Your task to perform on an android device: Clear the shopping cart on target. Add corsair k70 to the cart on target Image 0: 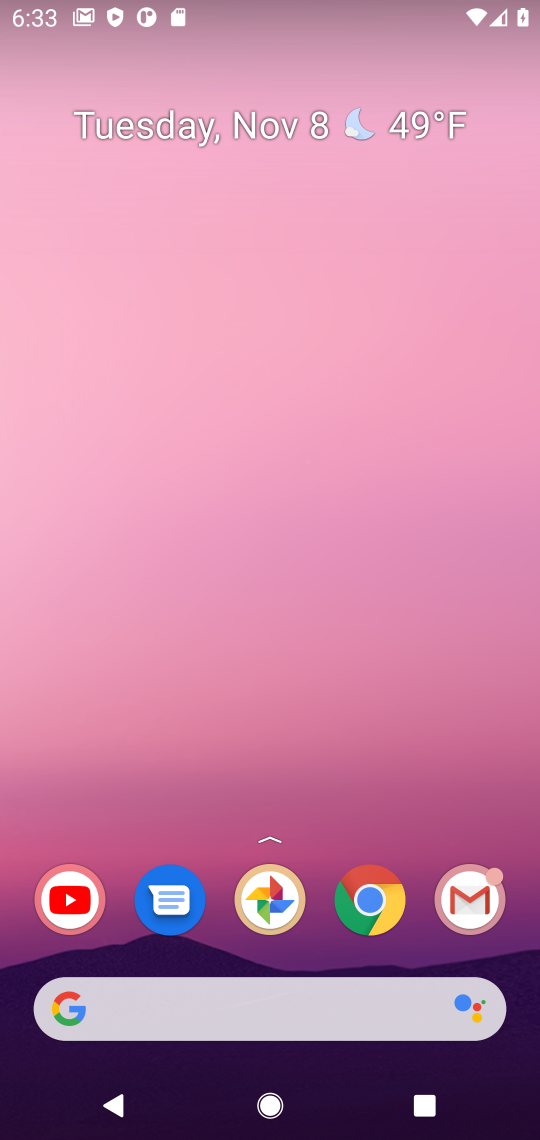
Step 0: click (366, 908)
Your task to perform on an android device: Clear the shopping cart on target. Add corsair k70 to the cart on target Image 1: 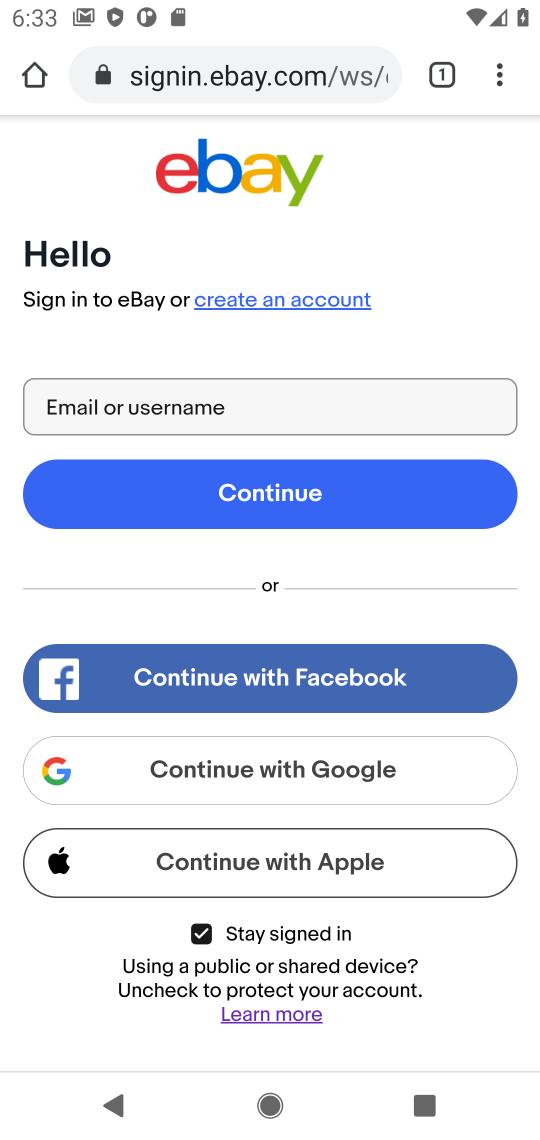
Step 1: click (191, 73)
Your task to perform on an android device: Clear the shopping cart on target. Add corsair k70 to the cart on target Image 2: 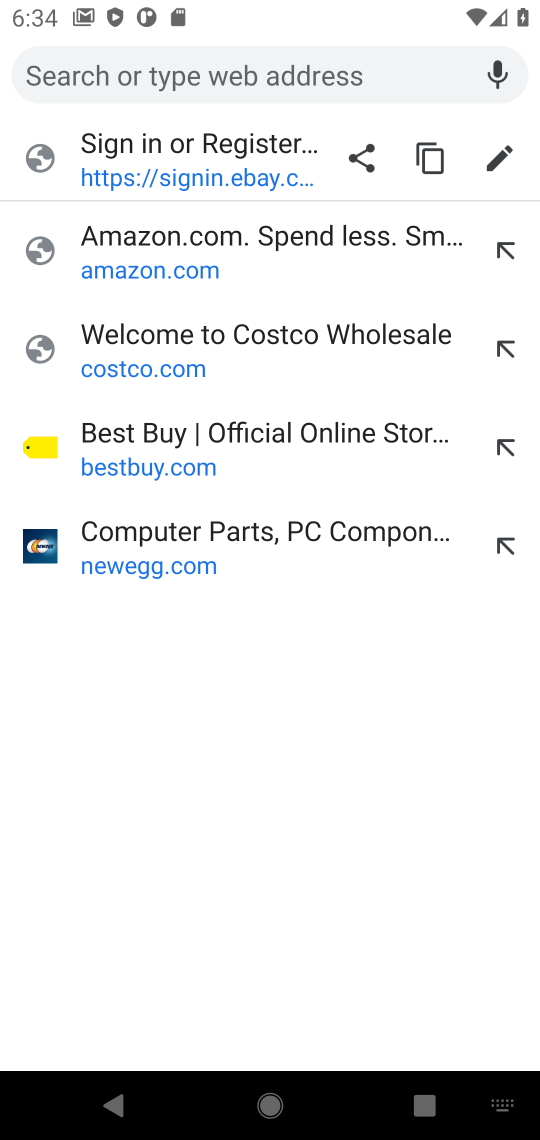
Step 2: type "target"
Your task to perform on an android device: Clear the shopping cart on target. Add corsair k70 to the cart on target Image 3: 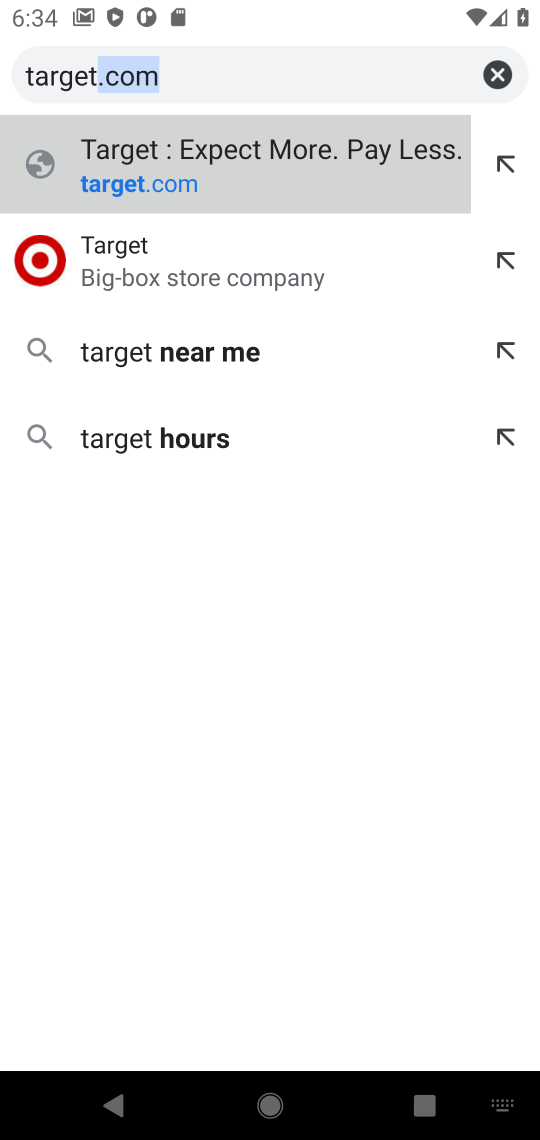
Step 3: type ""
Your task to perform on an android device: Clear the shopping cart on target. Add corsair k70 to the cart on target Image 4: 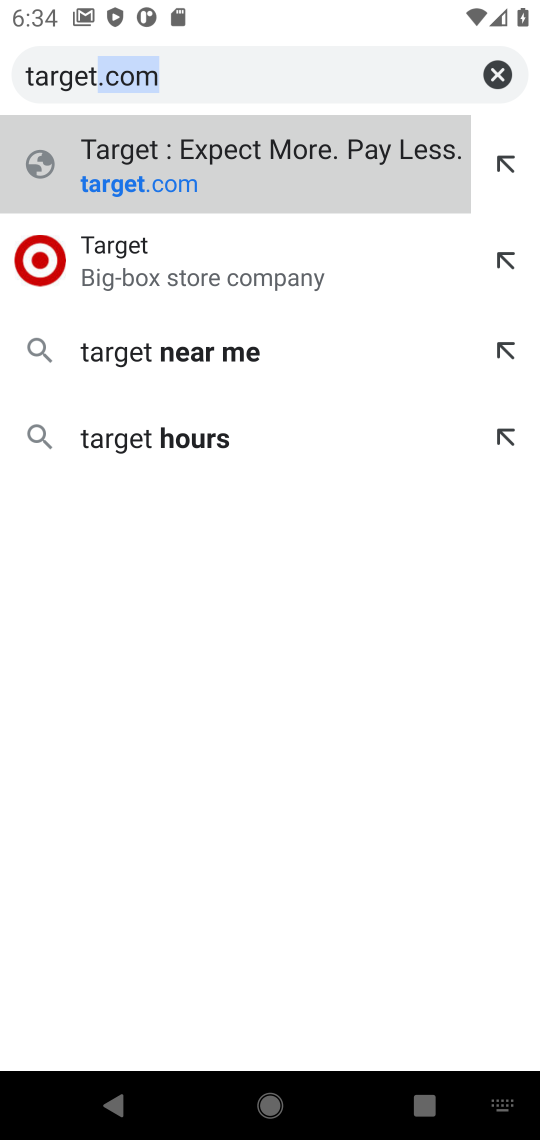
Step 4: press enter
Your task to perform on an android device: Clear the shopping cart on target. Add corsair k70 to the cart on target Image 5: 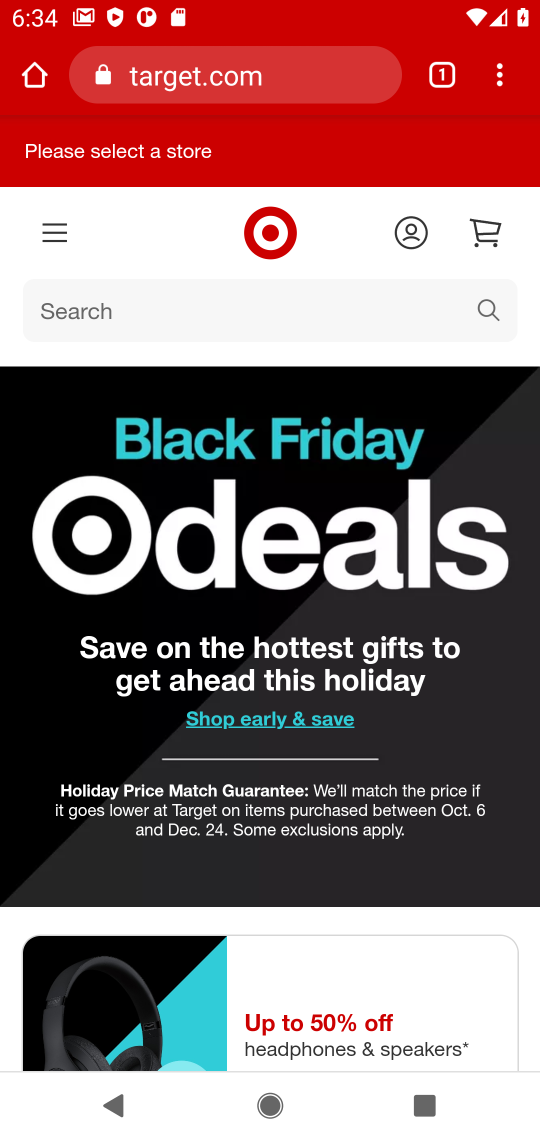
Step 5: click (518, 231)
Your task to perform on an android device: Clear the shopping cart on target. Add corsair k70 to the cart on target Image 6: 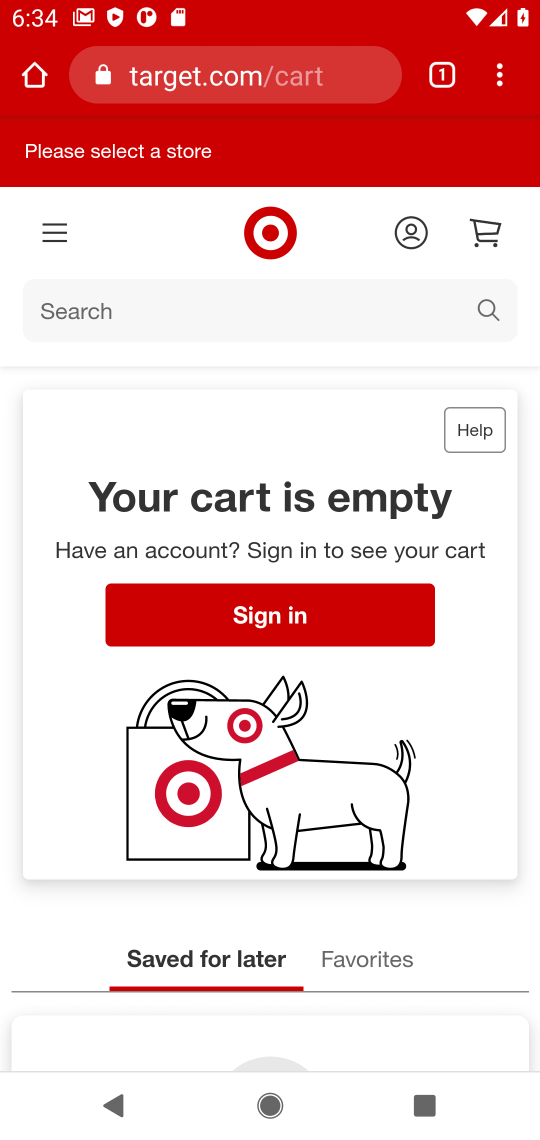
Step 6: click (312, 315)
Your task to perform on an android device: Clear the shopping cart on target. Add corsair k70 to the cart on target Image 7: 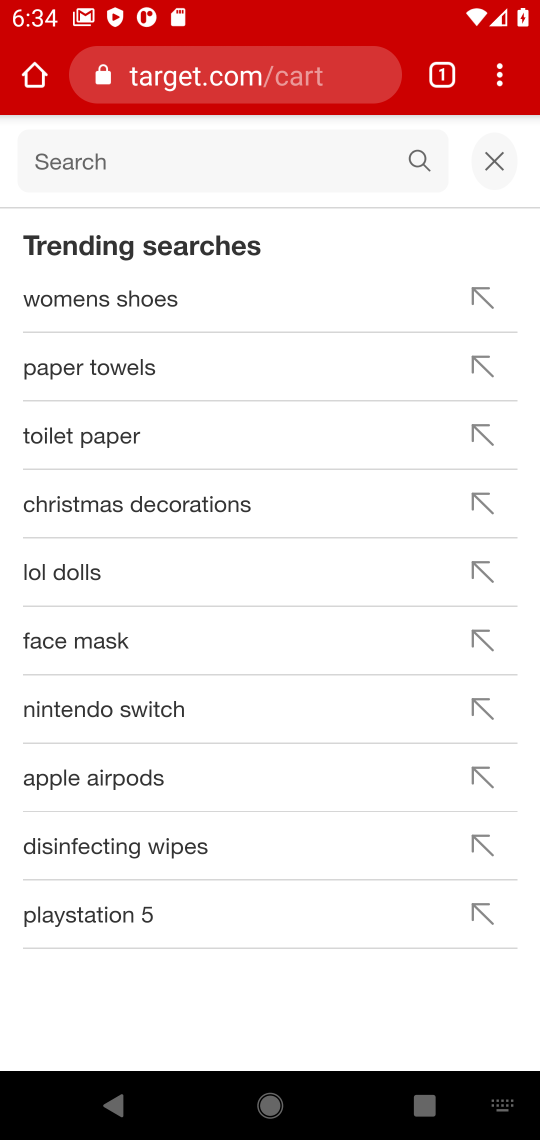
Step 7: type "corsair k70"
Your task to perform on an android device: Clear the shopping cart on target. Add corsair k70 to the cart on target Image 8: 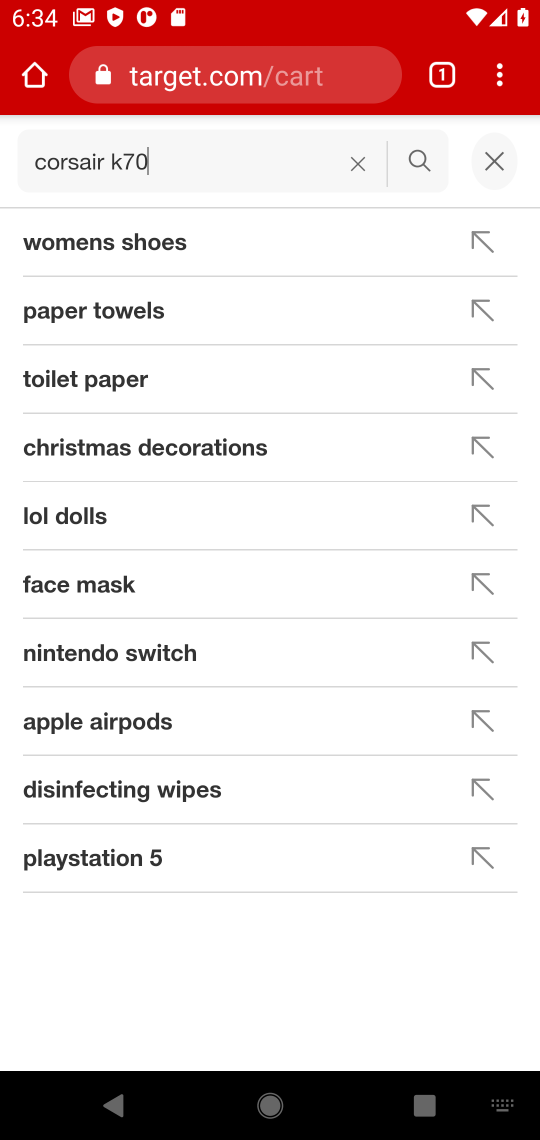
Step 8: type ""
Your task to perform on an android device: Clear the shopping cart on target. Add corsair k70 to the cart on target Image 9: 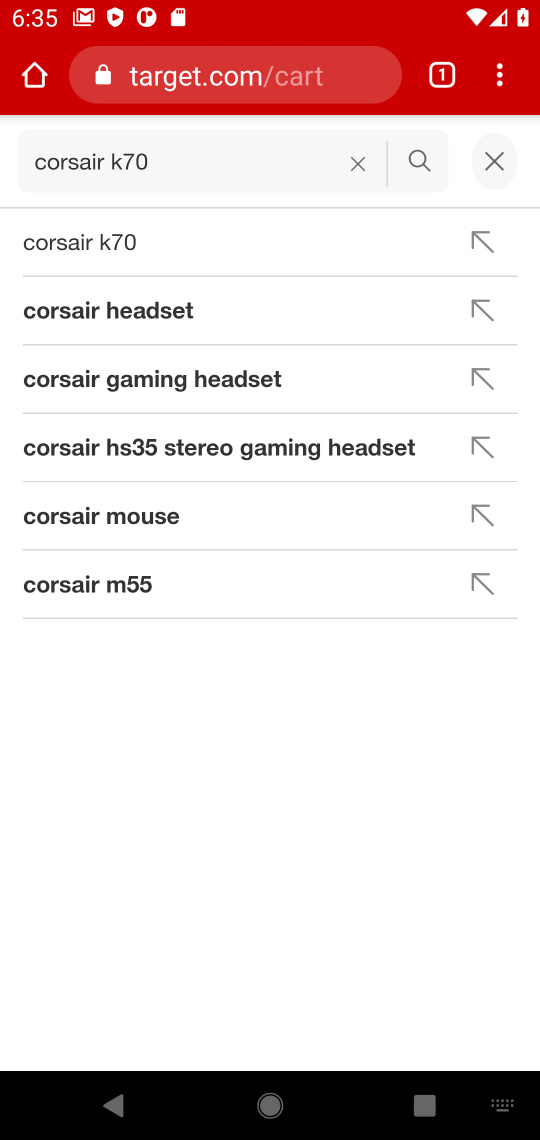
Step 9: press enter
Your task to perform on an android device: Clear the shopping cart on target. Add corsair k70 to the cart on target Image 10: 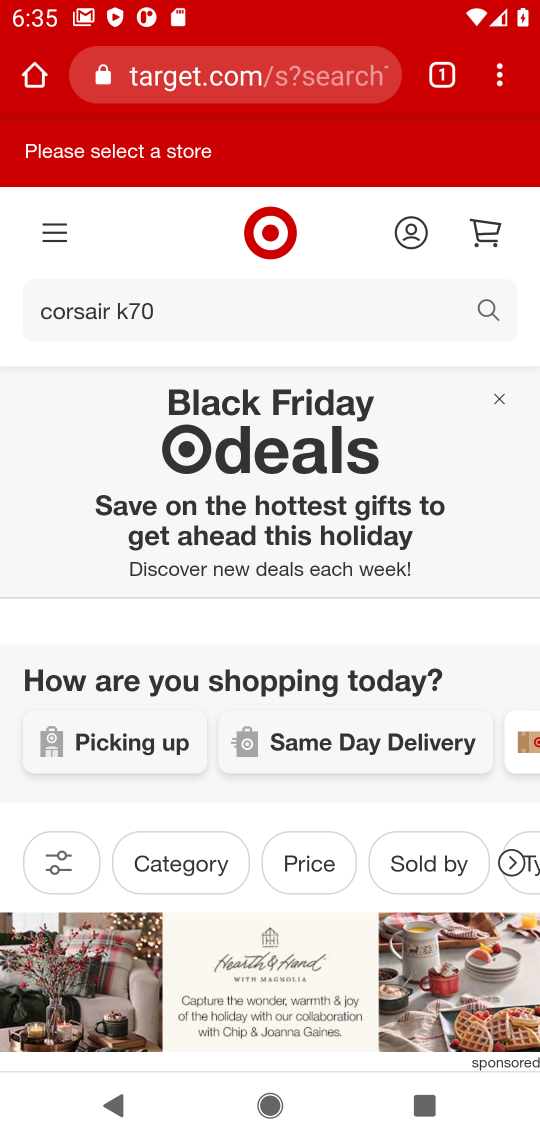
Step 10: drag from (213, 726) to (124, 485)
Your task to perform on an android device: Clear the shopping cart on target. Add corsair k70 to the cart on target Image 11: 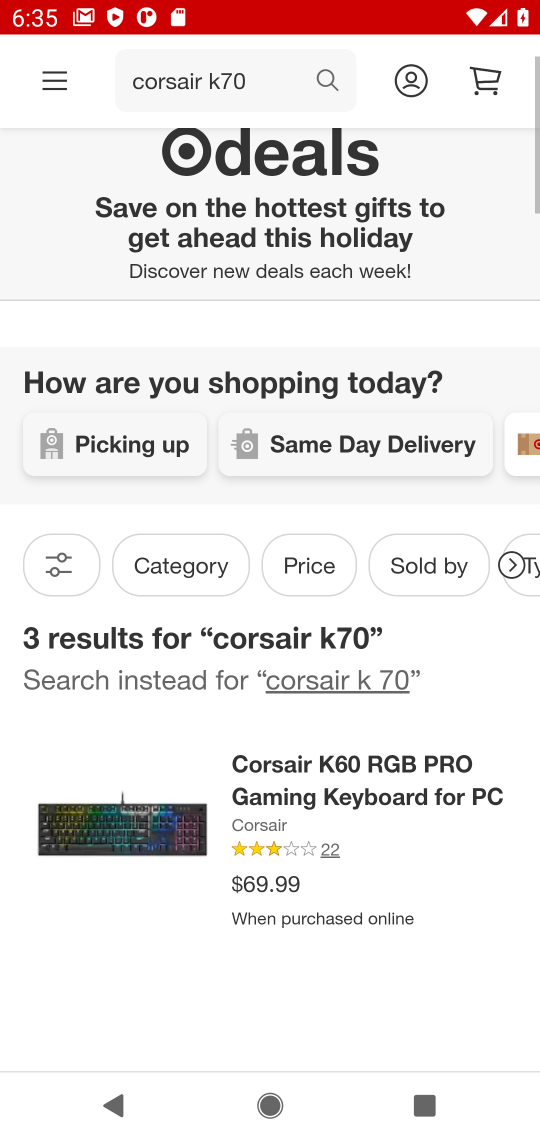
Step 11: click (124, 485)
Your task to perform on an android device: Clear the shopping cart on target. Add corsair k70 to the cart on target Image 12: 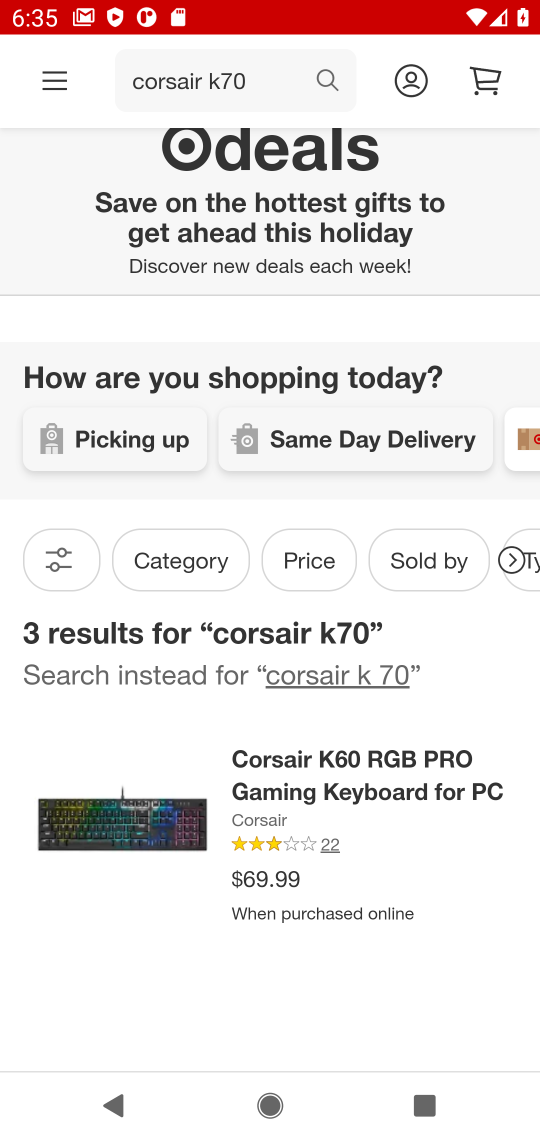
Step 12: drag from (300, 958) to (268, 673)
Your task to perform on an android device: Clear the shopping cart on target. Add corsair k70 to the cart on target Image 13: 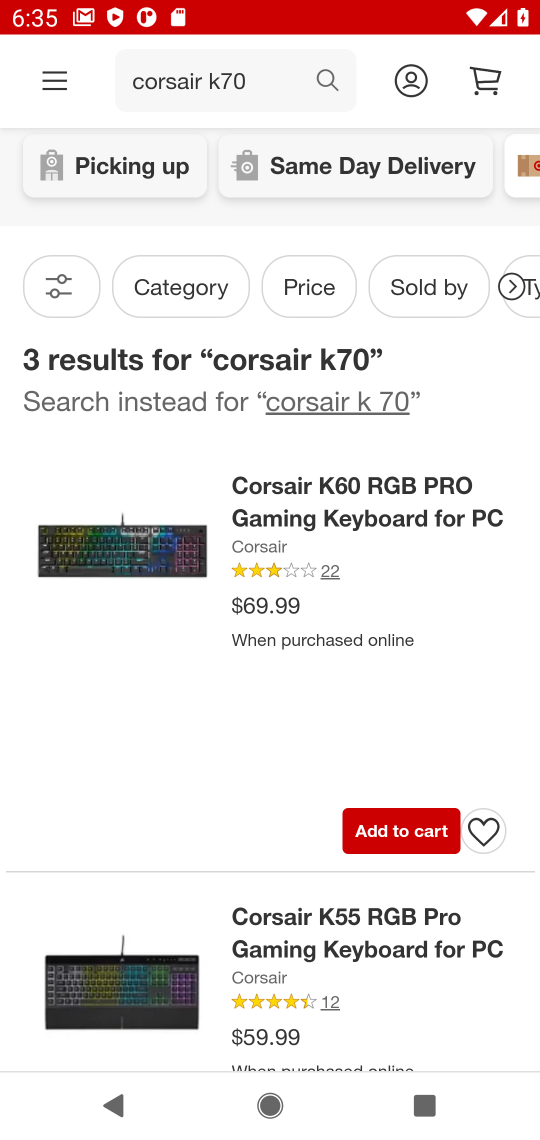
Step 13: drag from (268, 668) to (268, 527)
Your task to perform on an android device: Clear the shopping cart on target. Add corsair k70 to the cart on target Image 14: 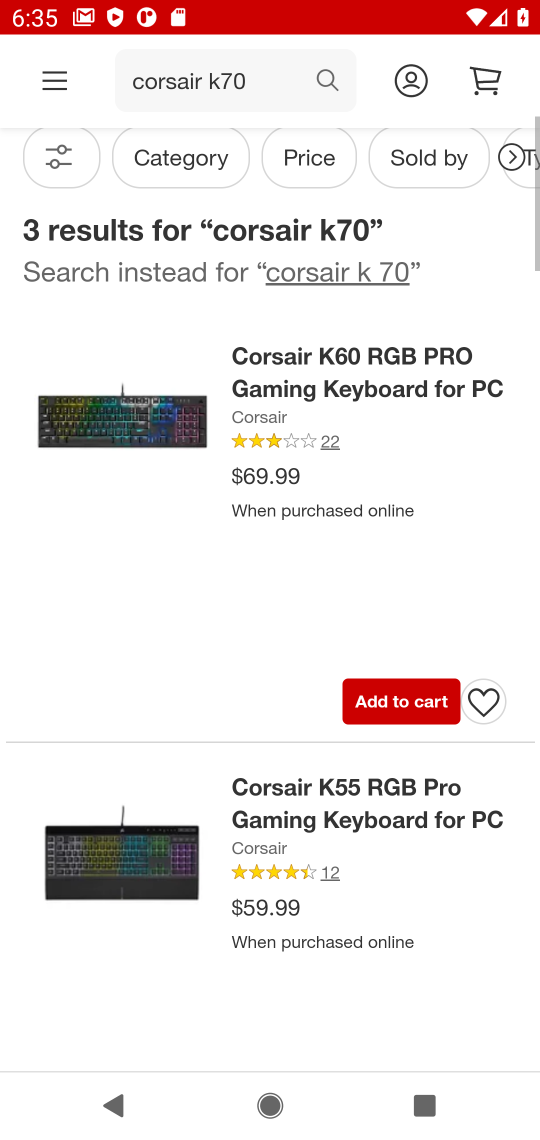
Step 14: click (266, 448)
Your task to perform on an android device: Clear the shopping cart on target. Add corsair k70 to the cart on target Image 15: 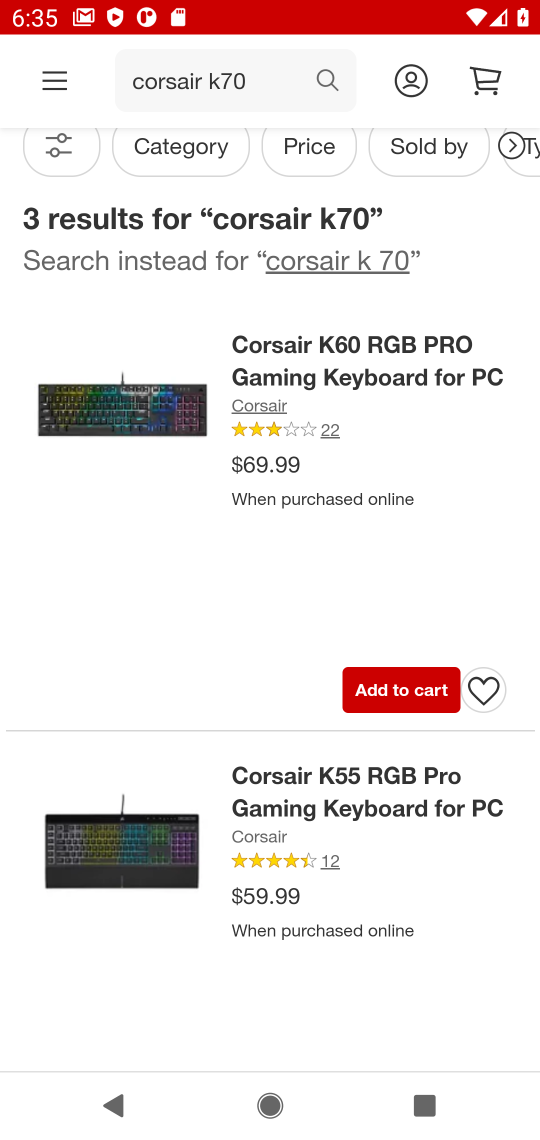
Step 15: drag from (309, 955) to (215, 401)
Your task to perform on an android device: Clear the shopping cart on target. Add corsair k70 to the cart on target Image 16: 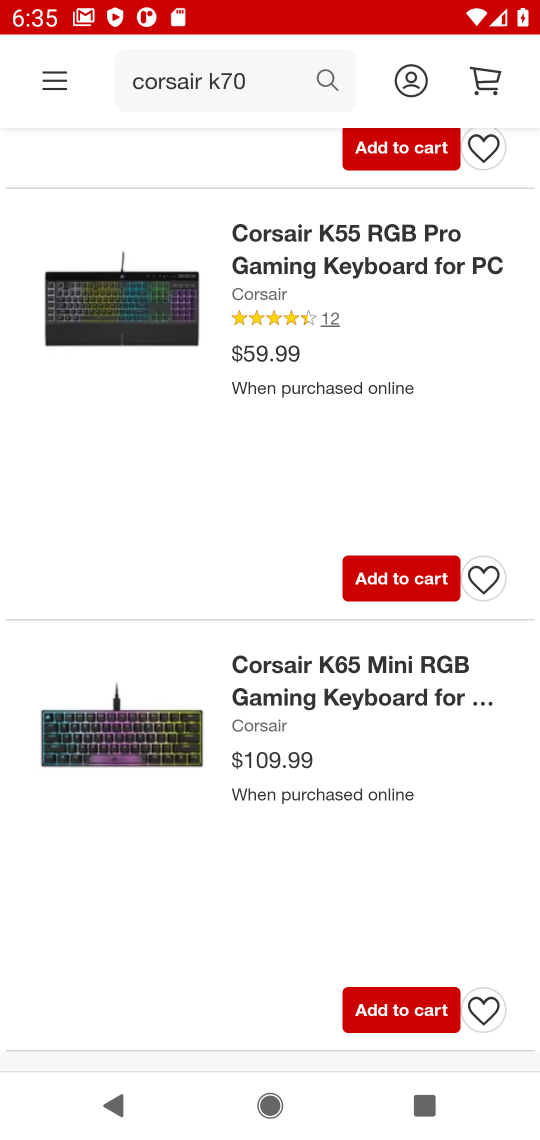
Step 16: click (178, 985)
Your task to perform on an android device: Clear the shopping cart on target. Add corsair k70 to the cart on target Image 17: 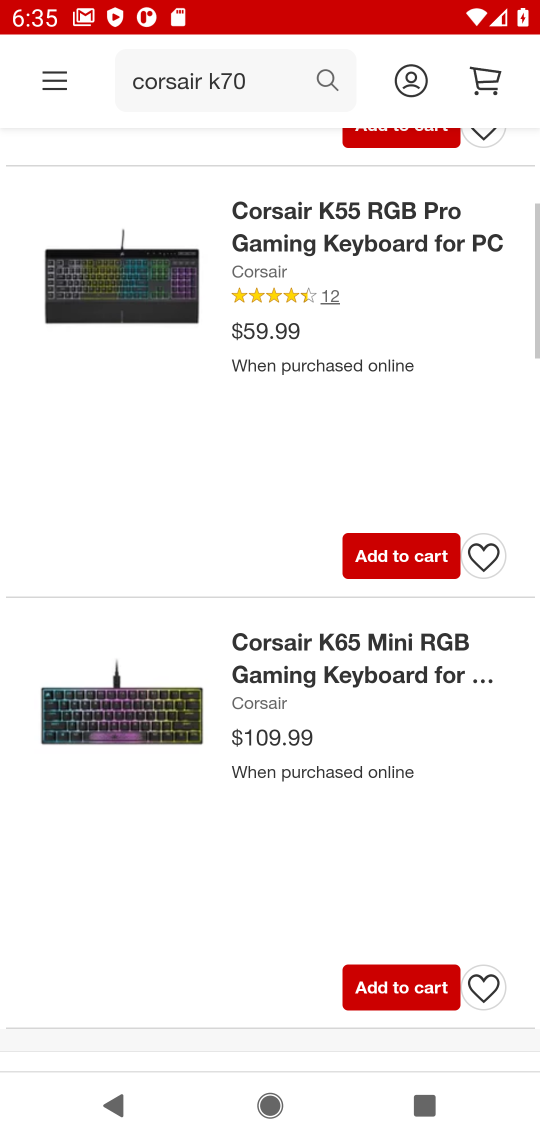
Step 17: click (178, 946)
Your task to perform on an android device: Clear the shopping cart on target. Add corsair k70 to the cart on target Image 18: 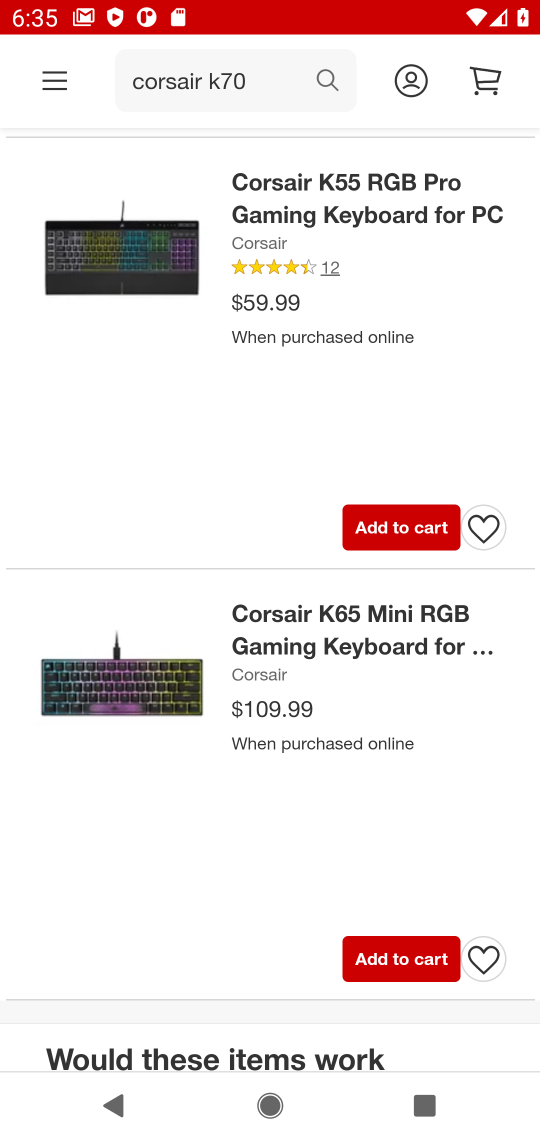
Step 18: task complete